Your task to perform on an android device: Open sound settings Image 0: 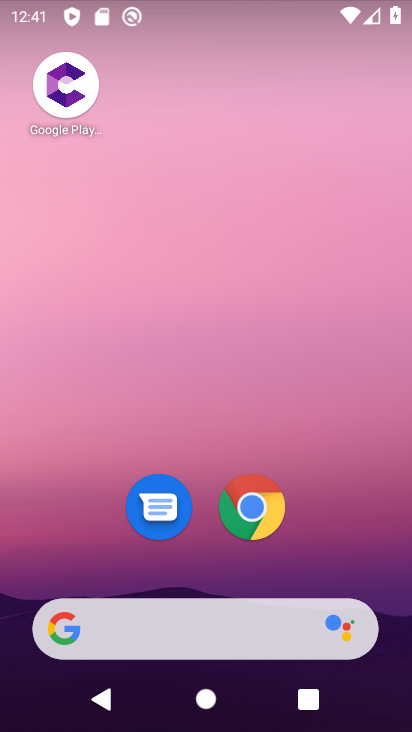
Step 0: drag from (213, 562) to (253, 25)
Your task to perform on an android device: Open sound settings Image 1: 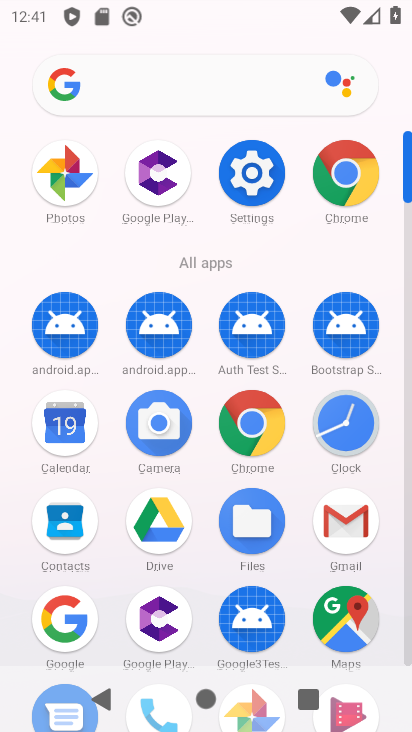
Step 1: click (248, 169)
Your task to perform on an android device: Open sound settings Image 2: 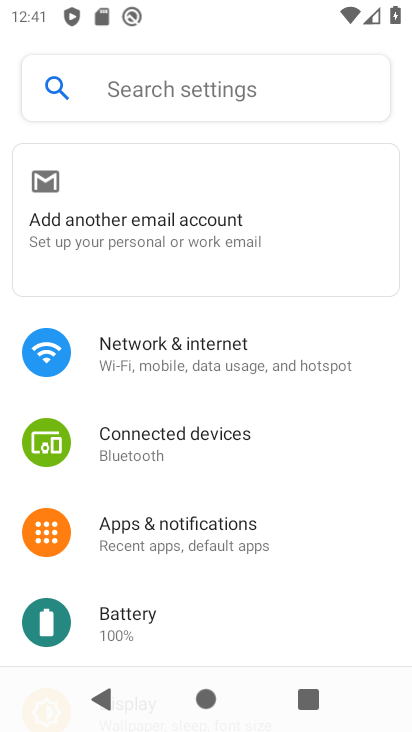
Step 2: drag from (235, 616) to (234, 116)
Your task to perform on an android device: Open sound settings Image 3: 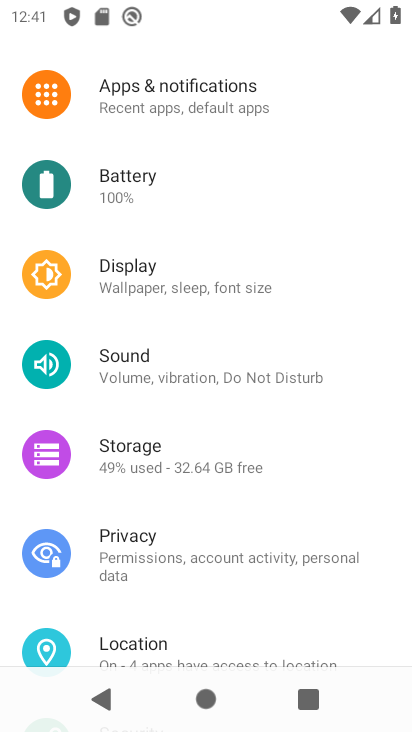
Step 3: click (161, 342)
Your task to perform on an android device: Open sound settings Image 4: 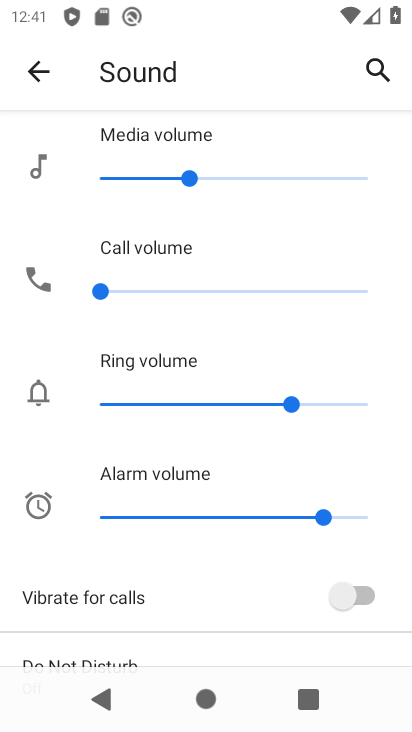
Step 4: drag from (225, 629) to (223, 137)
Your task to perform on an android device: Open sound settings Image 5: 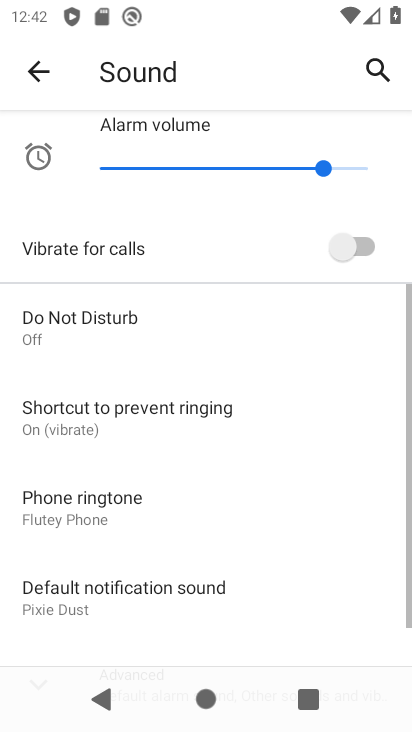
Step 5: drag from (182, 628) to (169, 125)
Your task to perform on an android device: Open sound settings Image 6: 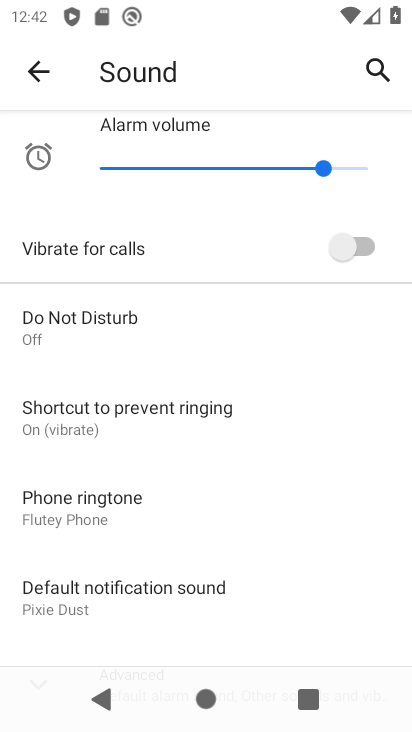
Step 6: click (240, 166)
Your task to perform on an android device: Open sound settings Image 7: 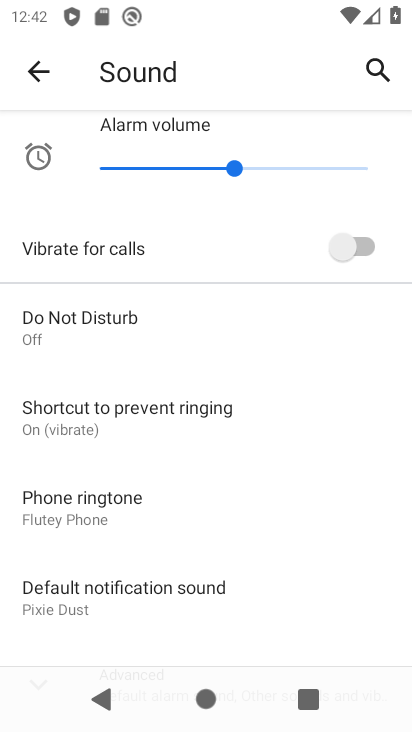
Step 7: drag from (207, 621) to (240, 292)
Your task to perform on an android device: Open sound settings Image 8: 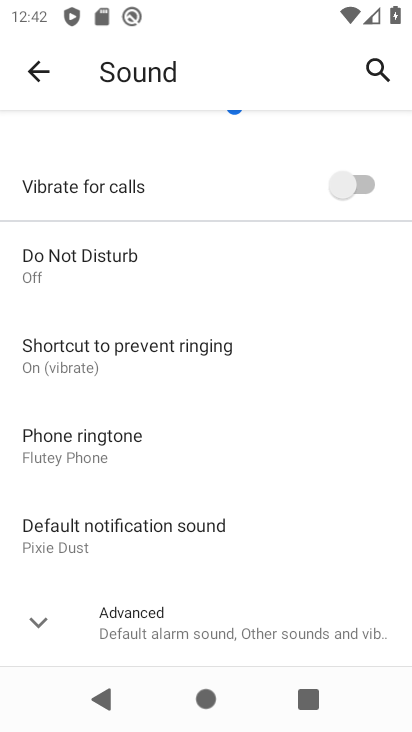
Step 8: click (35, 617)
Your task to perform on an android device: Open sound settings Image 9: 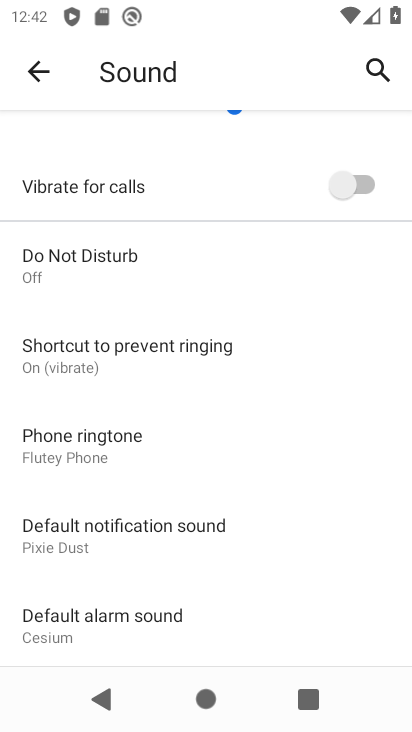
Step 9: task complete